Your task to perform on an android device: Is it going to rain today? Image 0: 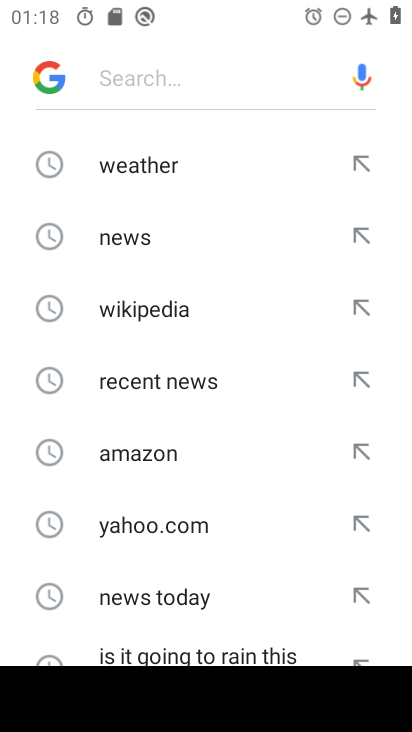
Step 0: click (134, 170)
Your task to perform on an android device: Is it going to rain today? Image 1: 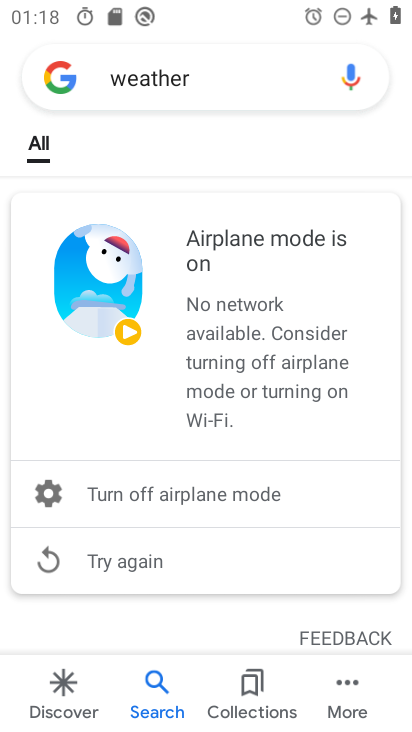
Step 1: task complete